Your task to perform on an android device: check the backup settings in the google photos Image 0: 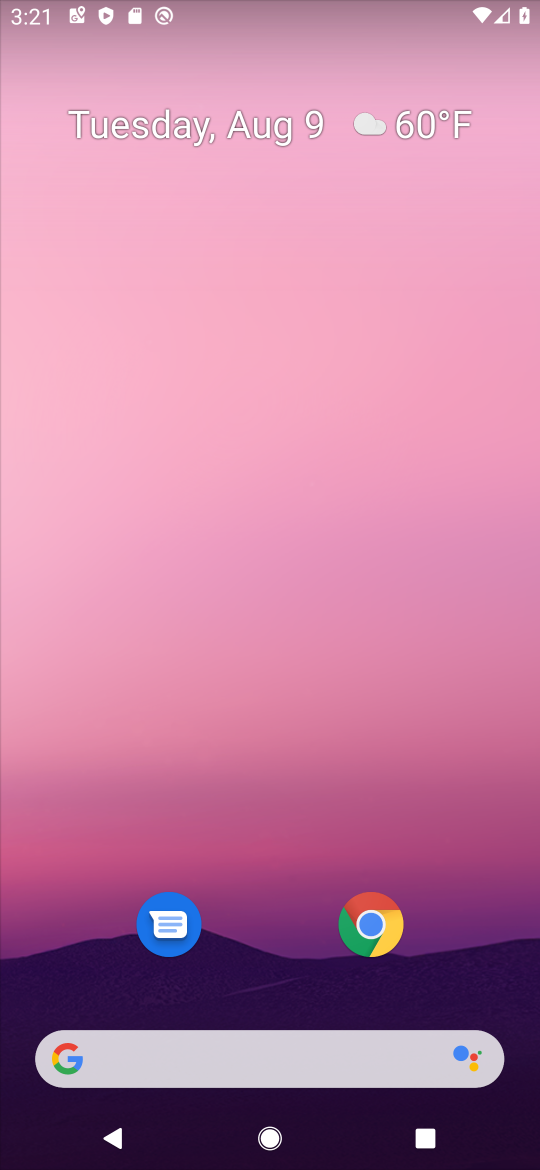
Step 0: drag from (269, 855) to (307, 5)
Your task to perform on an android device: check the backup settings in the google photos Image 1: 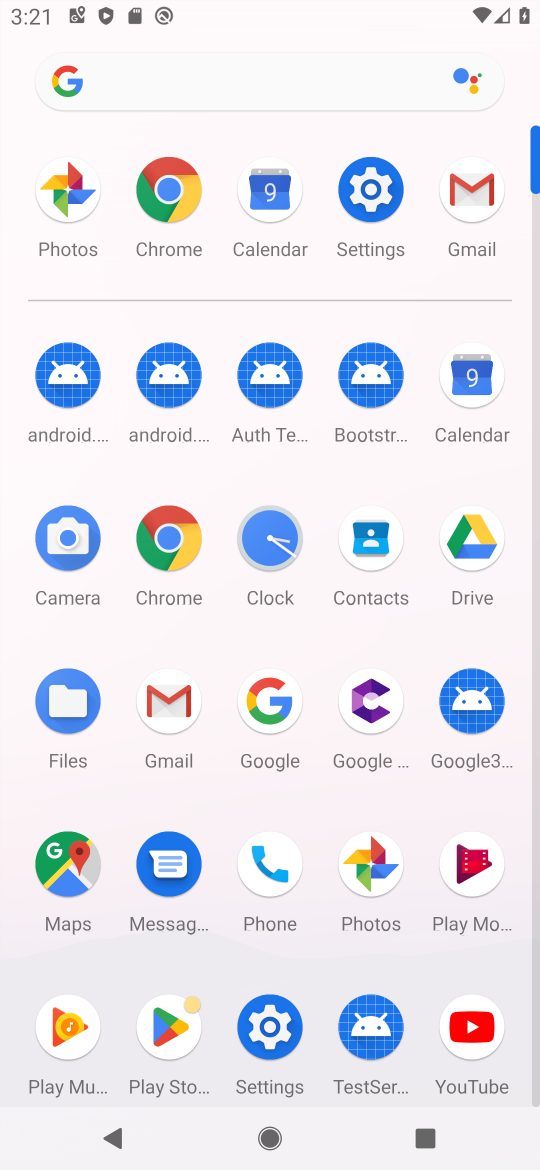
Step 1: click (66, 187)
Your task to perform on an android device: check the backup settings in the google photos Image 2: 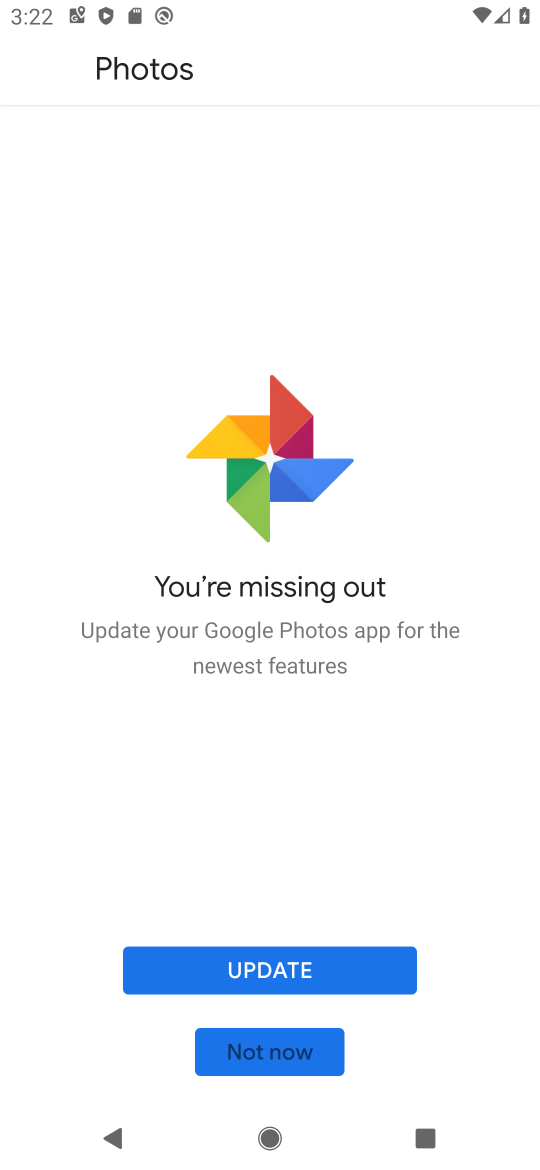
Step 2: click (274, 1064)
Your task to perform on an android device: check the backup settings in the google photos Image 3: 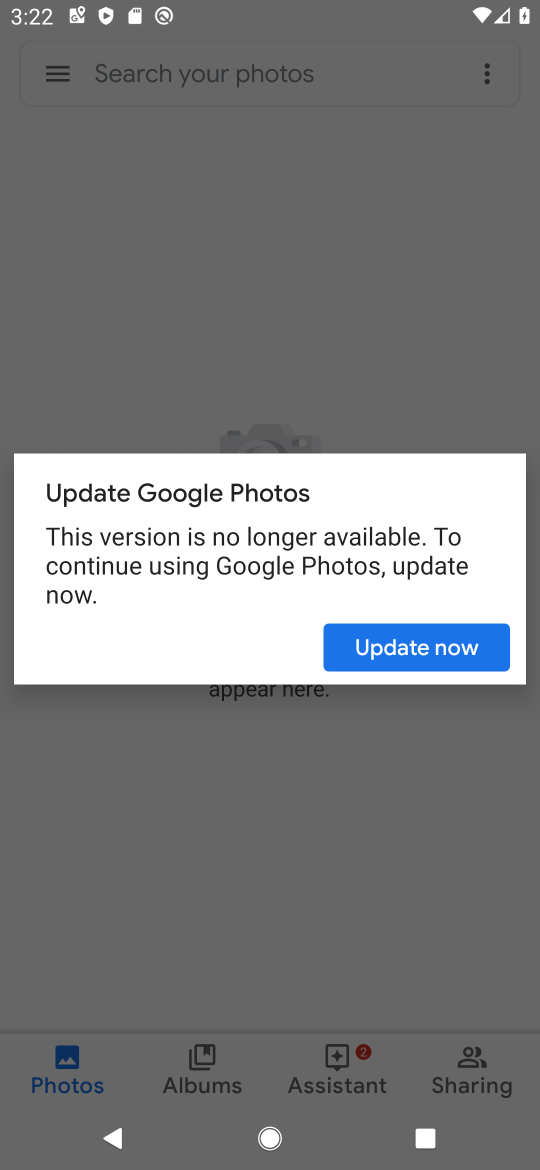
Step 3: click (467, 650)
Your task to perform on an android device: check the backup settings in the google photos Image 4: 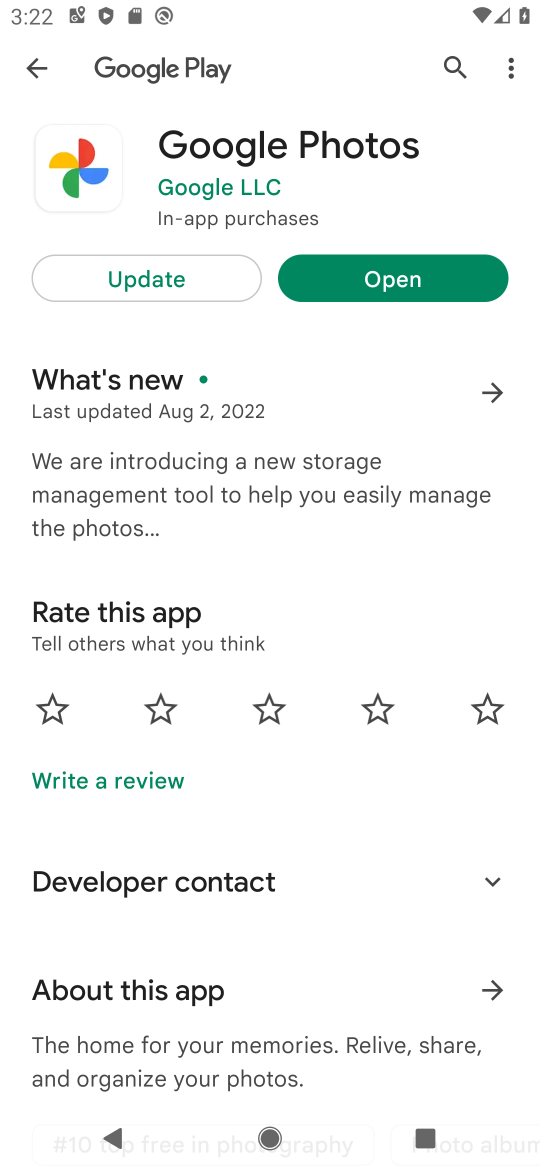
Step 4: click (429, 271)
Your task to perform on an android device: check the backup settings in the google photos Image 5: 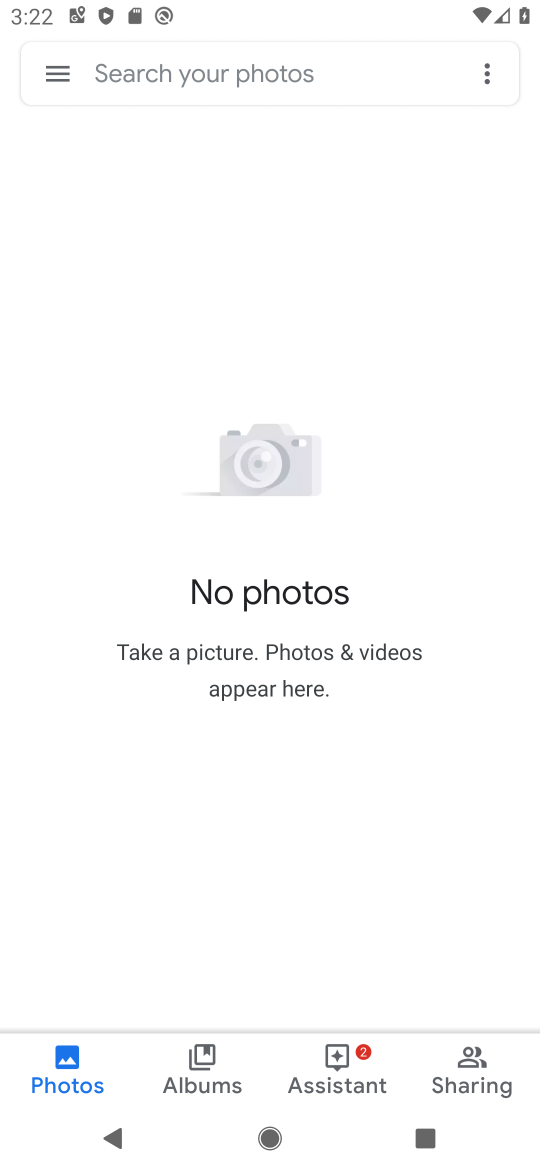
Step 5: click (56, 73)
Your task to perform on an android device: check the backup settings in the google photos Image 6: 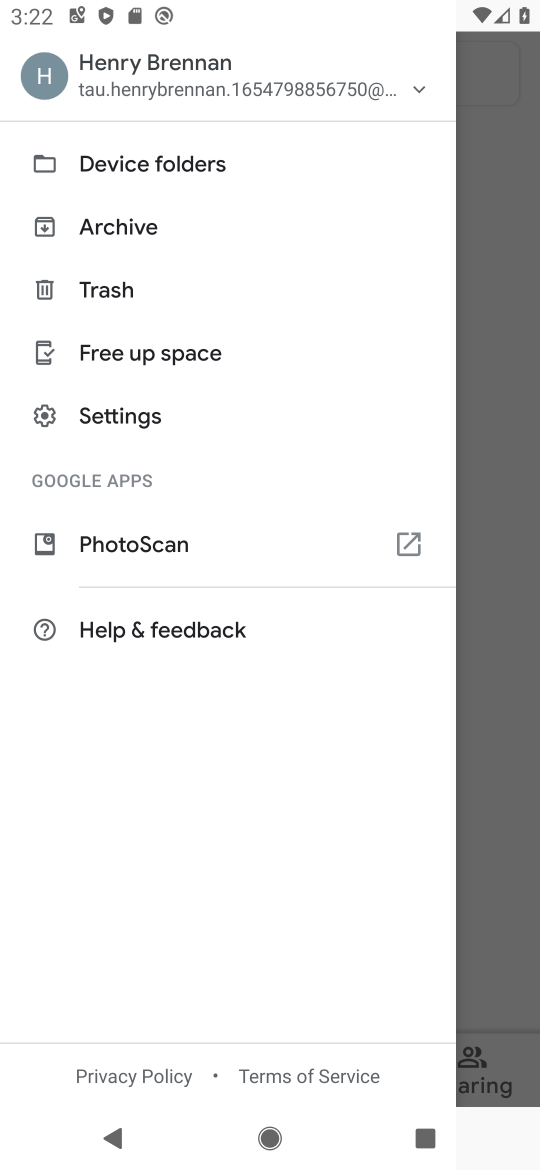
Step 6: click (145, 407)
Your task to perform on an android device: check the backup settings in the google photos Image 7: 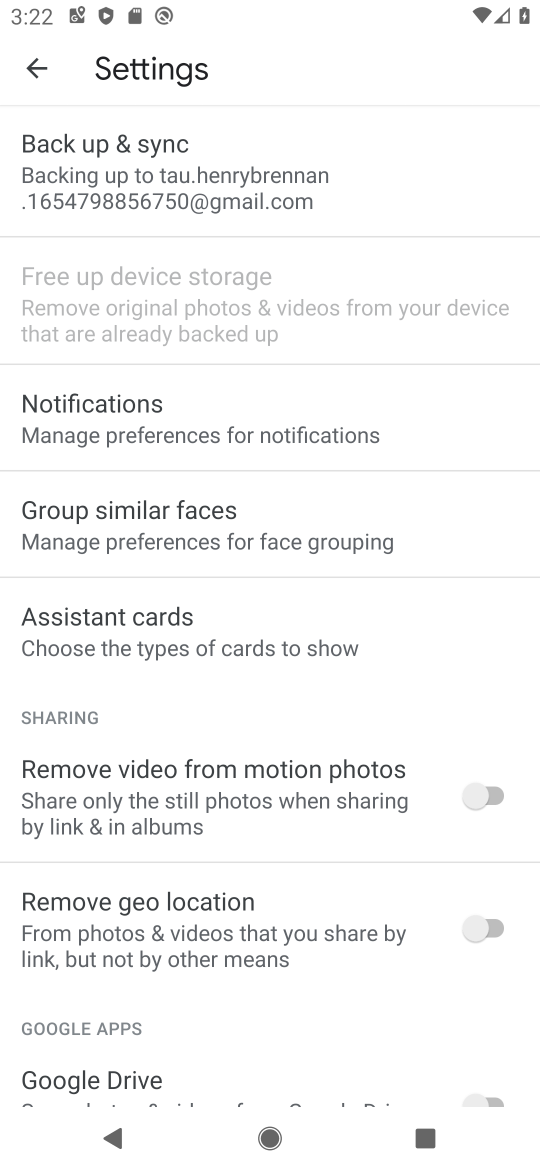
Step 7: click (164, 167)
Your task to perform on an android device: check the backup settings in the google photos Image 8: 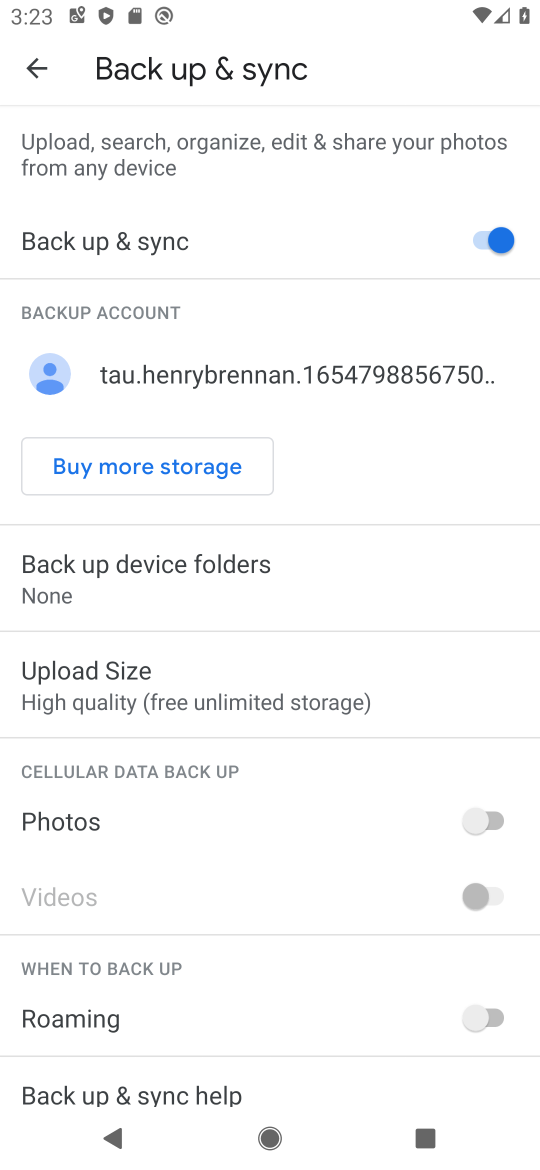
Step 8: task complete